Your task to perform on an android device: Search for Mexican restaurants on Maps Image 0: 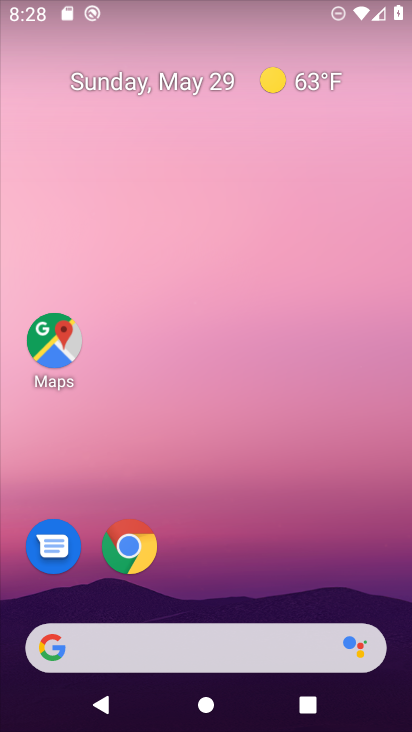
Step 0: press home button
Your task to perform on an android device: Search for Mexican restaurants on Maps Image 1: 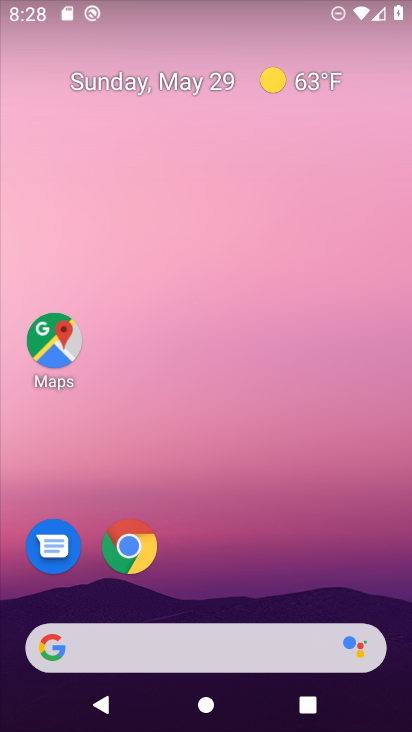
Step 1: click (61, 344)
Your task to perform on an android device: Search for Mexican restaurants on Maps Image 2: 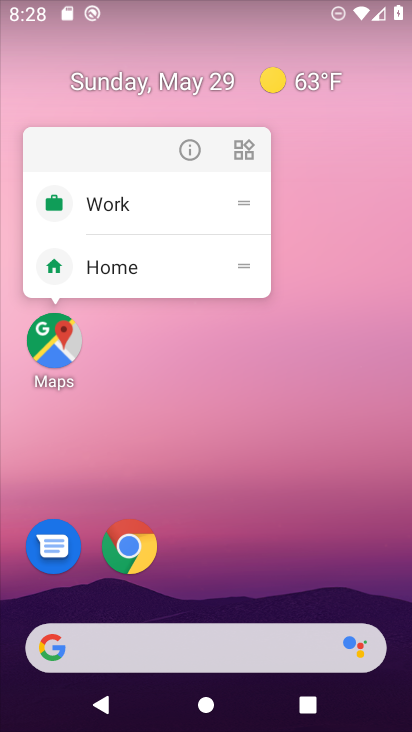
Step 2: click (48, 346)
Your task to perform on an android device: Search for Mexican restaurants on Maps Image 3: 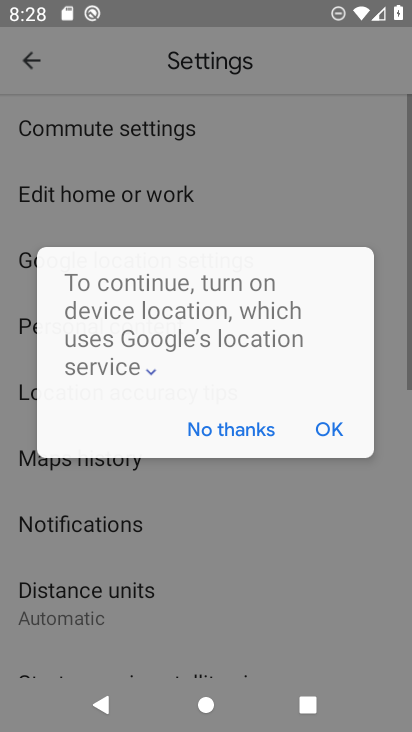
Step 3: click (34, 52)
Your task to perform on an android device: Search for Mexican restaurants on Maps Image 4: 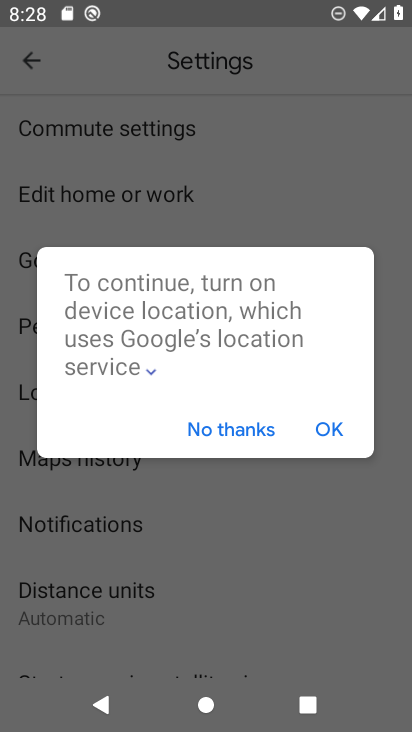
Step 4: click (331, 431)
Your task to perform on an android device: Search for Mexican restaurants on Maps Image 5: 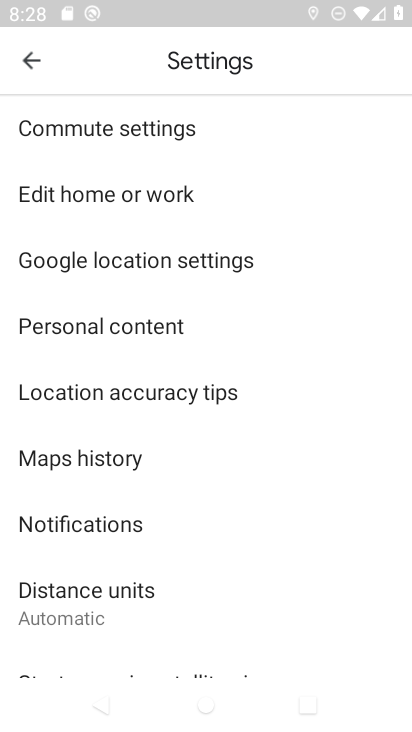
Step 5: click (27, 49)
Your task to perform on an android device: Search for Mexican restaurants on Maps Image 6: 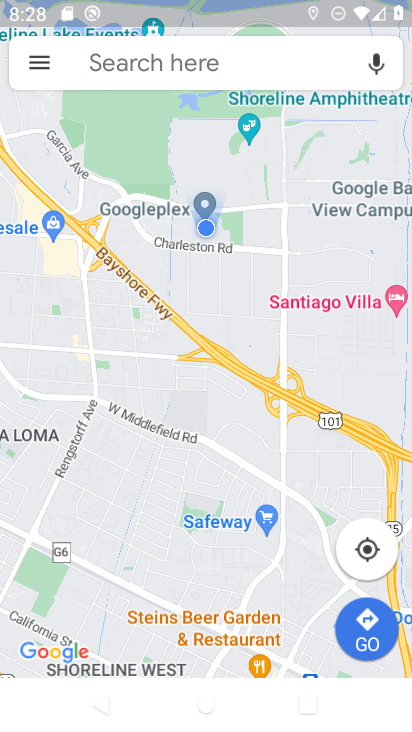
Step 6: click (168, 61)
Your task to perform on an android device: Search for Mexican restaurants on Maps Image 7: 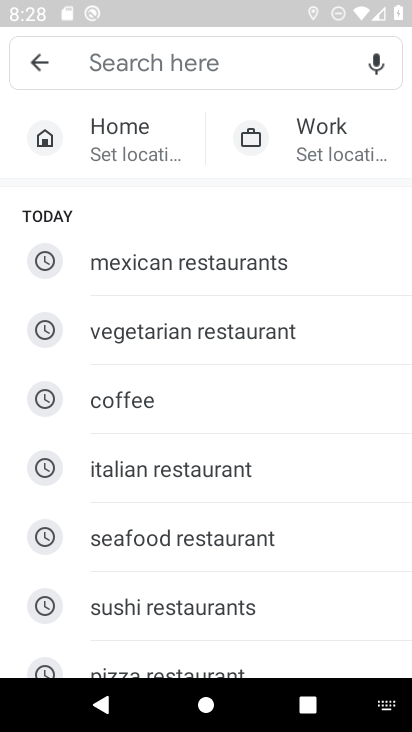
Step 7: click (197, 261)
Your task to perform on an android device: Search for Mexican restaurants on Maps Image 8: 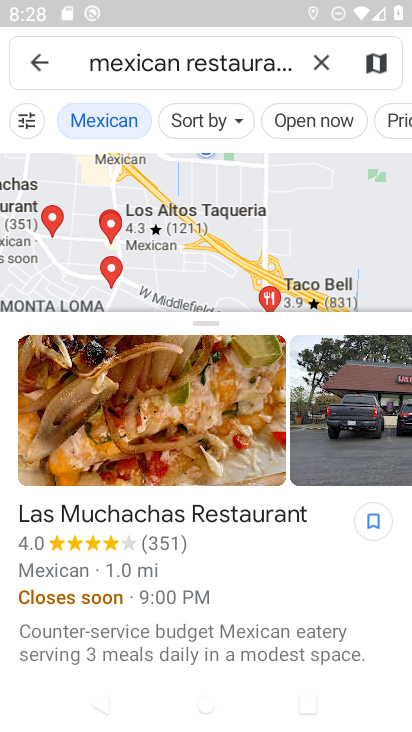
Step 8: task complete